Your task to perform on an android device: Open Google Maps Image 0: 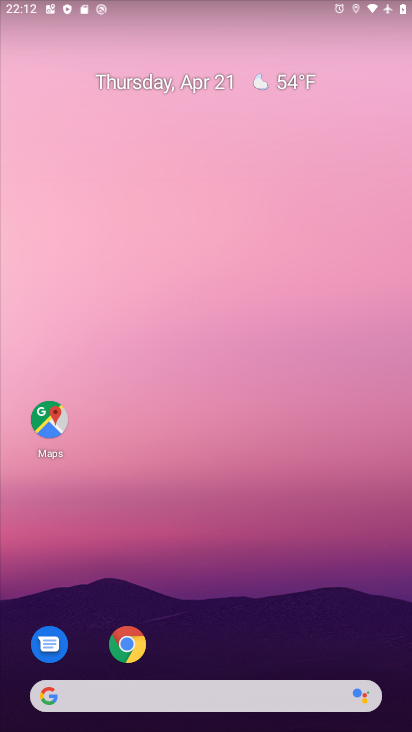
Step 0: click (55, 418)
Your task to perform on an android device: Open Google Maps Image 1: 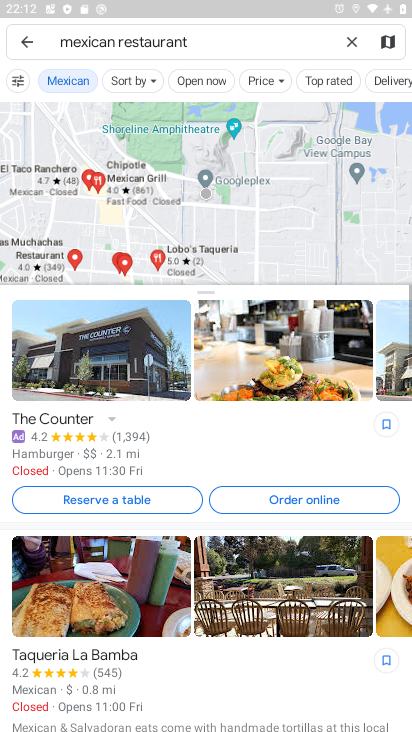
Step 1: task complete